Your task to perform on an android device: delete the emails in spam in the gmail app Image 0: 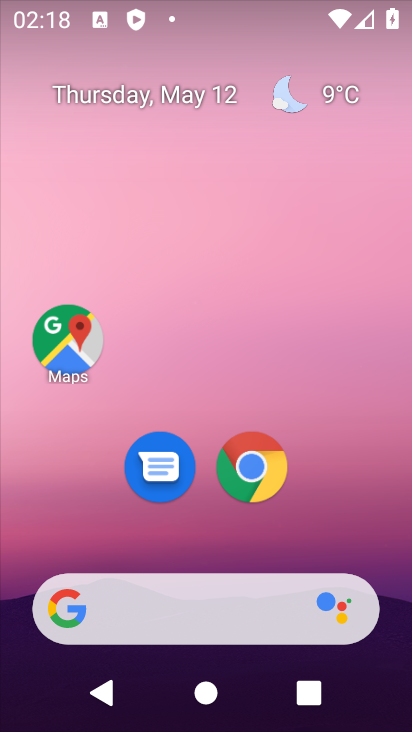
Step 0: drag from (323, 501) to (333, 232)
Your task to perform on an android device: delete the emails in spam in the gmail app Image 1: 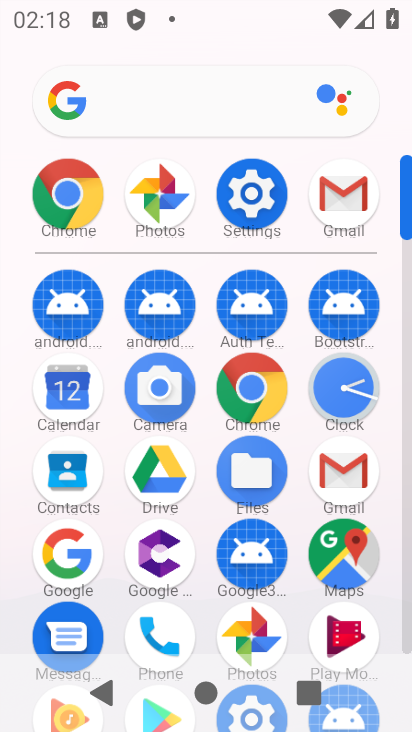
Step 1: click (356, 180)
Your task to perform on an android device: delete the emails in spam in the gmail app Image 2: 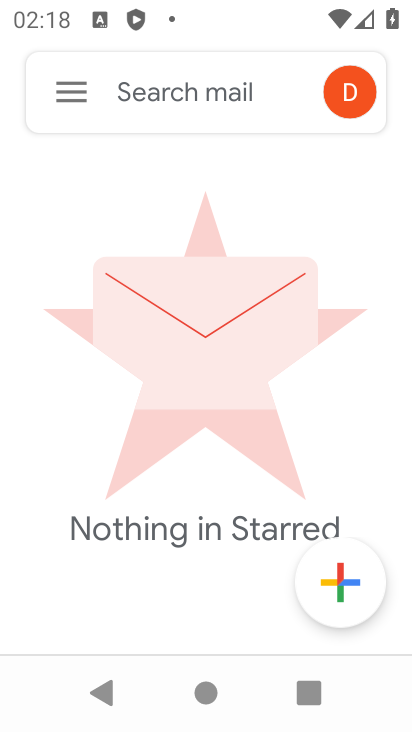
Step 2: click (67, 101)
Your task to perform on an android device: delete the emails in spam in the gmail app Image 3: 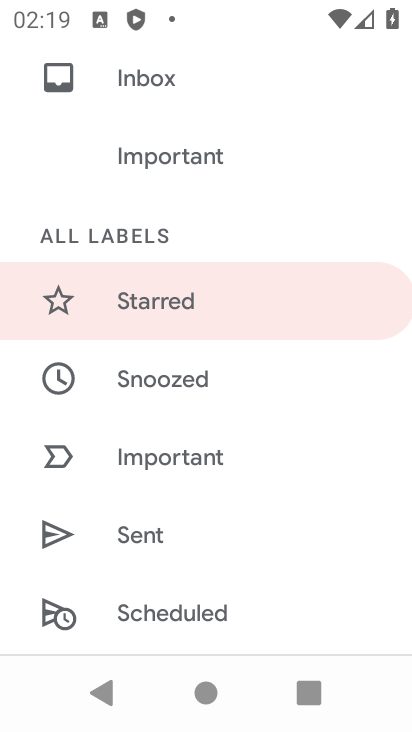
Step 3: drag from (196, 585) to (298, 242)
Your task to perform on an android device: delete the emails in spam in the gmail app Image 4: 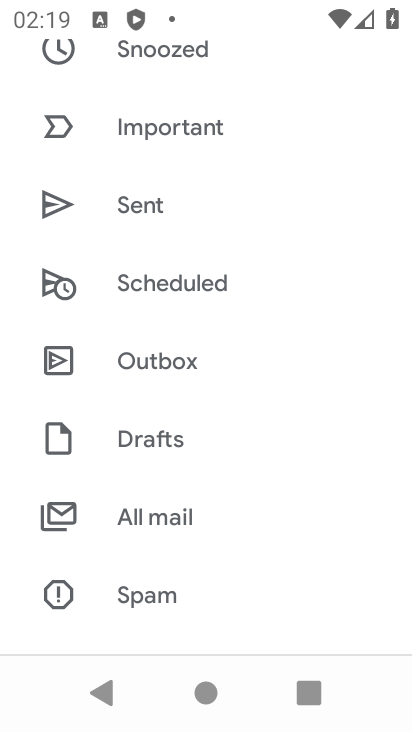
Step 4: click (156, 587)
Your task to perform on an android device: delete the emails in spam in the gmail app Image 5: 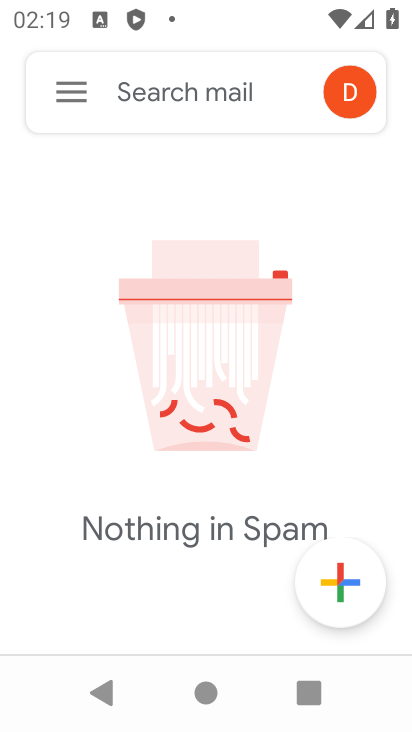
Step 5: task complete